Your task to perform on an android device: toggle location history Image 0: 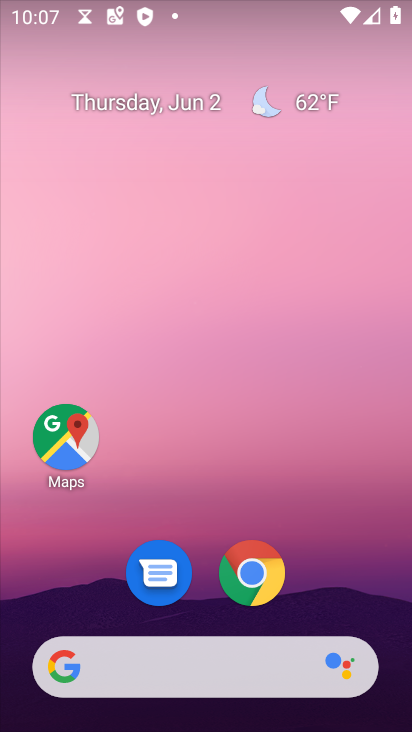
Step 0: drag from (347, 545) to (287, 55)
Your task to perform on an android device: toggle location history Image 1: 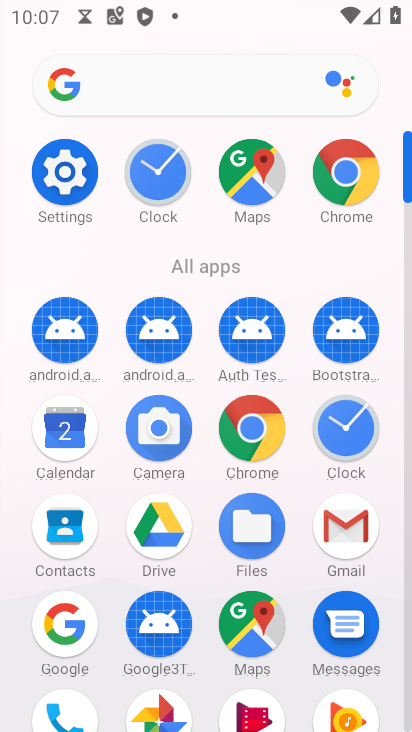
Step 1: click (65, 172)
Your task to perform on an android device: toggle location history Image 2: 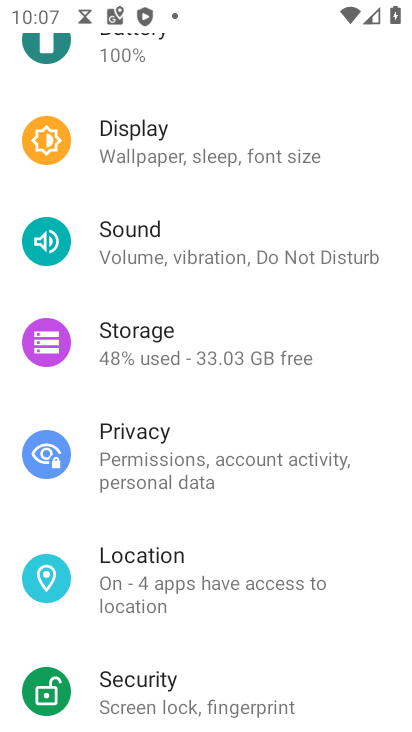
Step 2: click (159, 570)
Your task to perform on an android device: toggle location history Image 3: 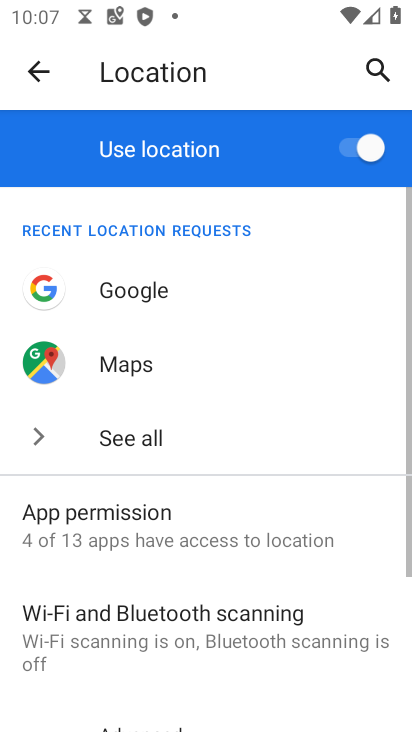
Step 3: drag from (183, 579) to (311, 304)
Your task to perform on an android device: toggle location history Image 4: 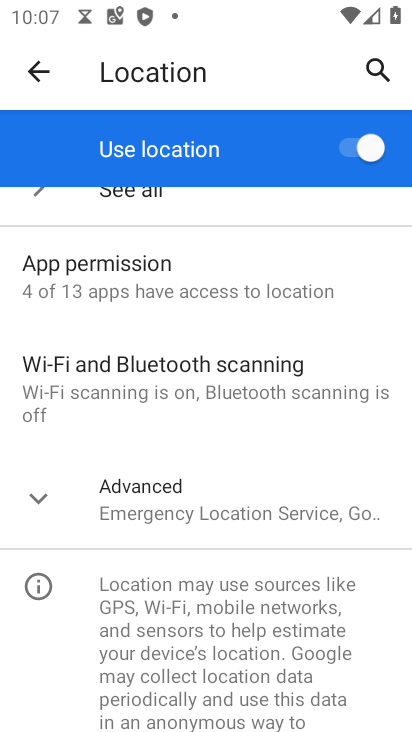
Step 4: click (232, 518)
Your task to perform on an android device: toggle location history Image 5: 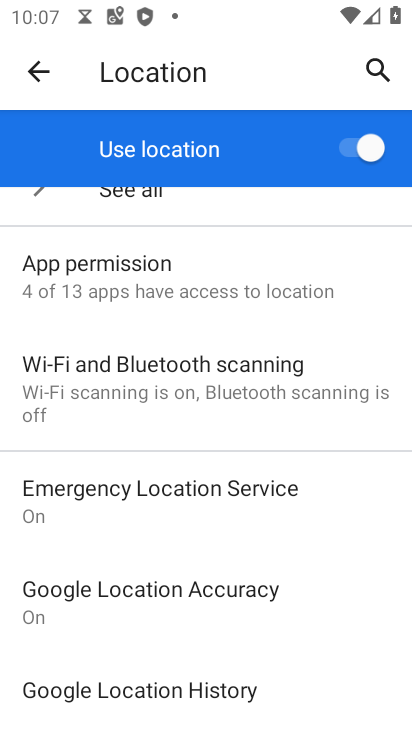
Step 5: drag from (145, 616) to (165, 463)
Your task to perform on an android device: toggle location history Image 6: 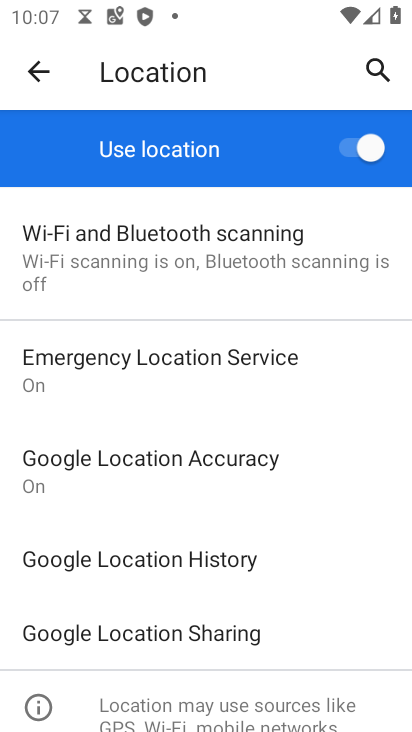
Step 6: click (185, 559)
Your task to perform on an android device: toggle location history Image 7: 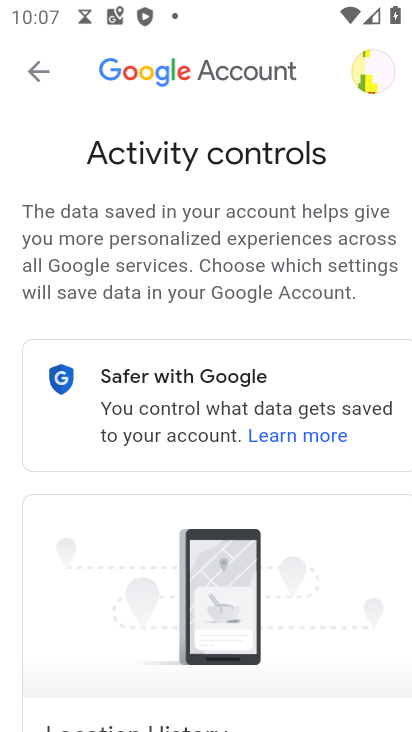
Step 7: drag from (128, 620) to (225, 423)
Your task to perform on an android device: toggle location history Image 8: 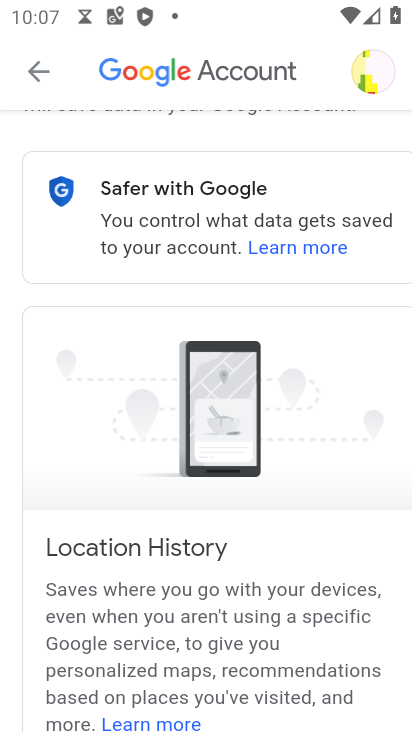
Step 8: drag from (215, 598) to (285, 413)
Your task to perform on an android device: toggle location history Image 9: 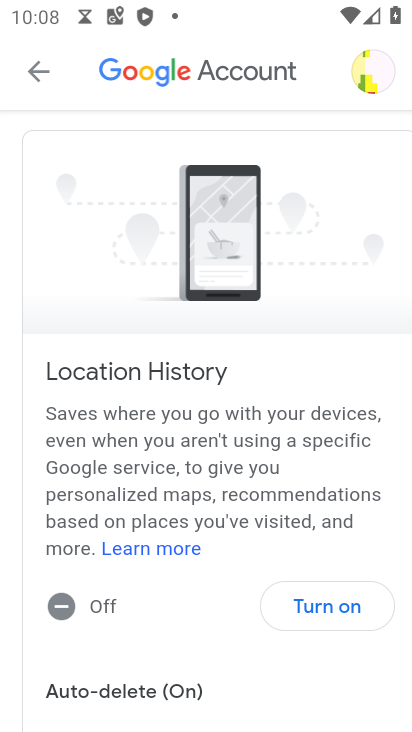
Step 9: click (322, 602)
Your task to perform on an android device: toggle location history Image 10: 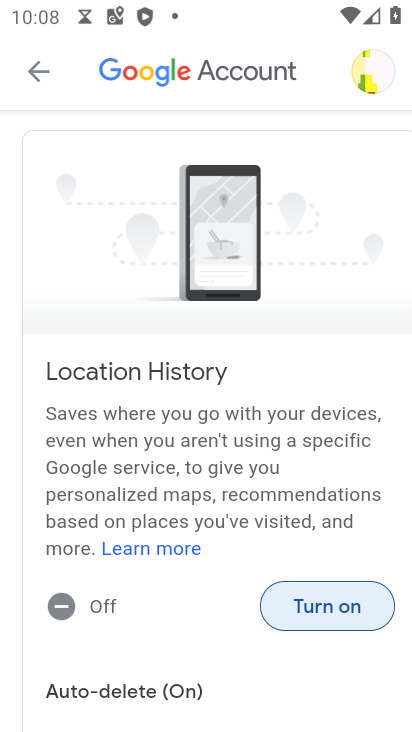
Step 10: click (327, 606)
Your task to perform on an android device: toggle location history Image 11: 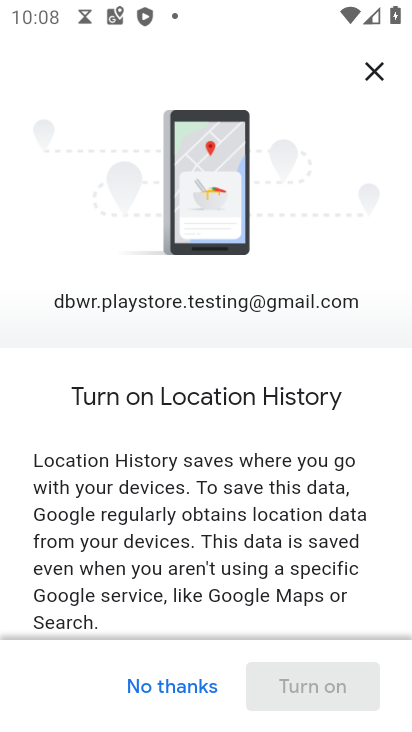
Step 11: drag from (242, 590) to (284, 450)
Your task to perform on an android device: toggle location history Image 12: 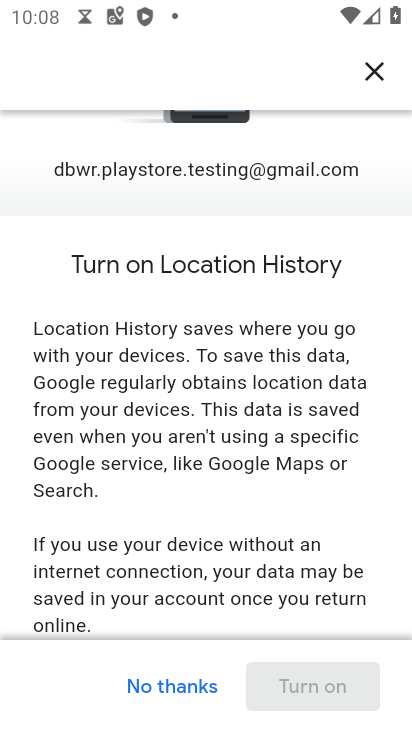
Step 12: drag from (205, 579) to (274, 472)
Your task to perform on an android device: toggle location history Image 13: 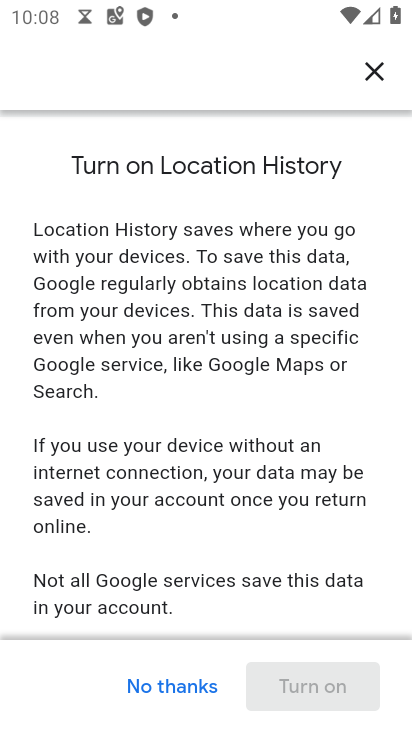
Step 13: drag from (212, 588) to (299, 450)
Your task to perform on an android device: toggle location history Image 14: 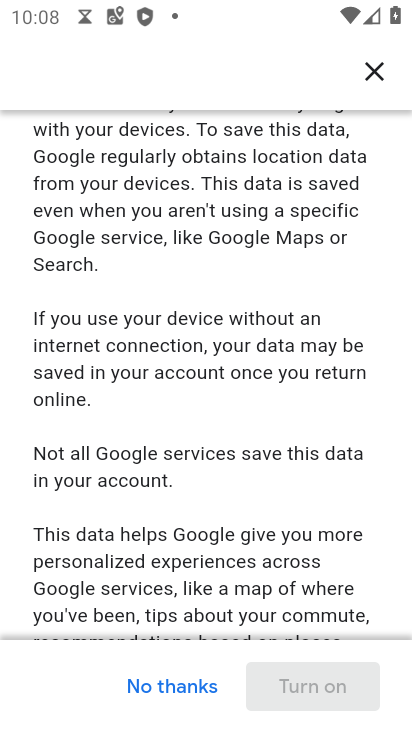
Step 14: drag from (225, 575) to (317, 446)
Your task to perform on an android device: toggle location history Image 15: 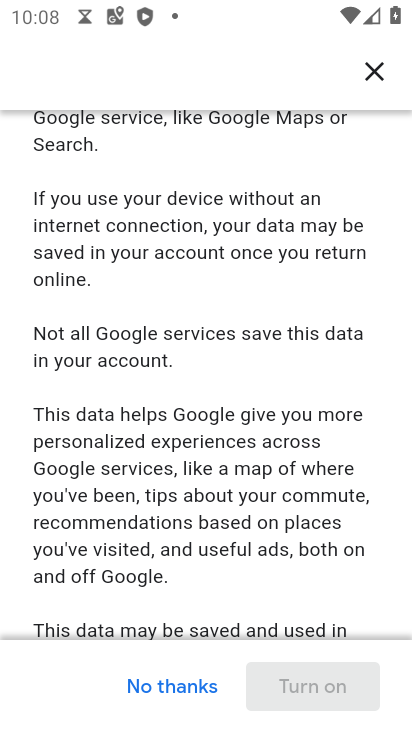
Step 15: drag from (253, 574) to (350, 441)
Your task to perform on an android device: toggle location history Image 16: 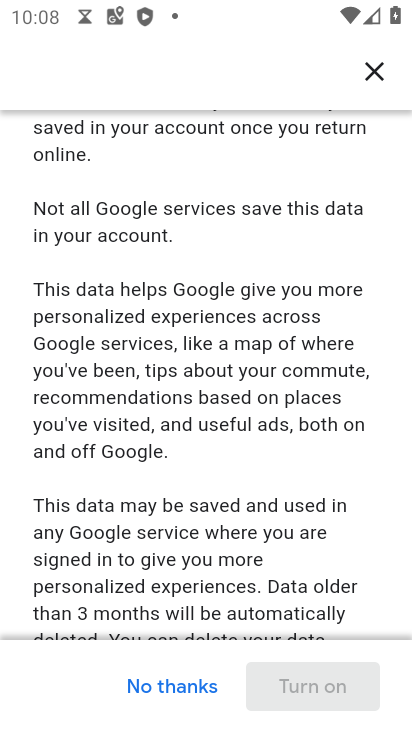
Step 16: drag from (245, 606) to (302, 459)
Your task to perform on an android device: toggle location history Image 17: 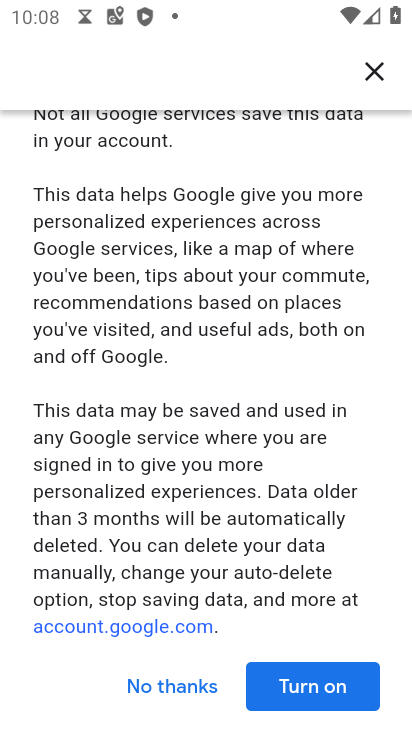
Step 17: click (313, 685)
Your task to perform on an android device: toggle location history Image 18: 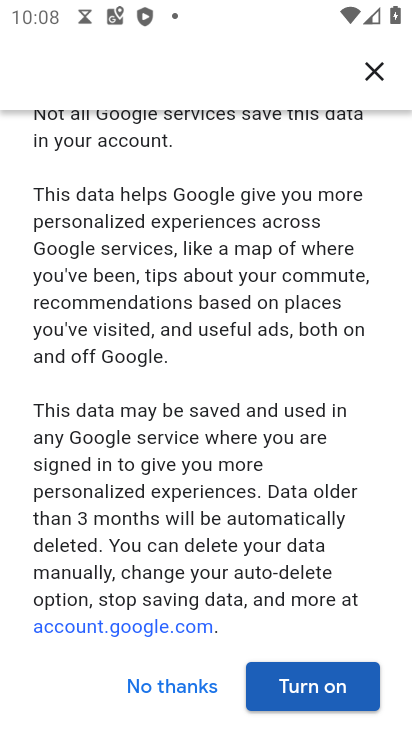
Step 18: click (313, 685)
Your task to perform on an android device: toggle location history Image 19: 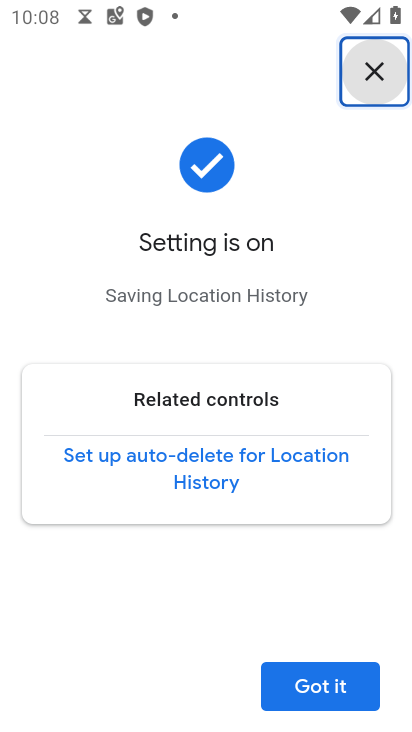
Step 19: click (313, 685)
Your task to perform on an android device: toggle location history Image 20: 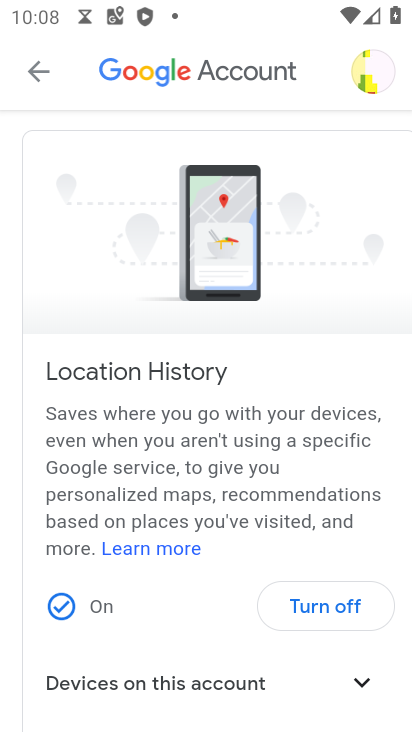
Step 20: task complete